Your task to perform on an android device: toggle airplane mode Image 0: 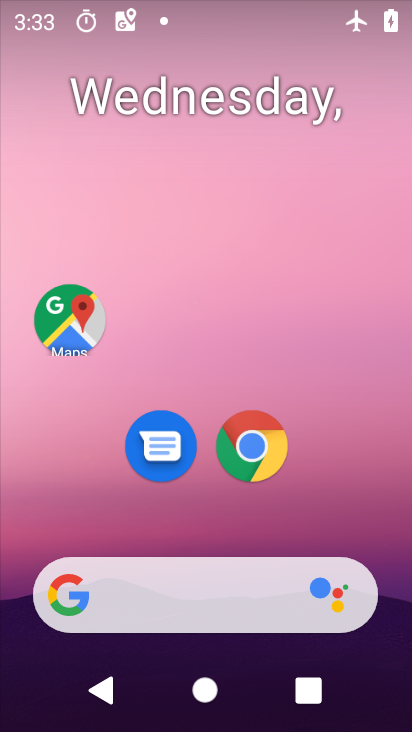
Step 0: drag from (249, 516) to (308, 51)
Your task to perform on an android device: toggle airplane mode Image 1: 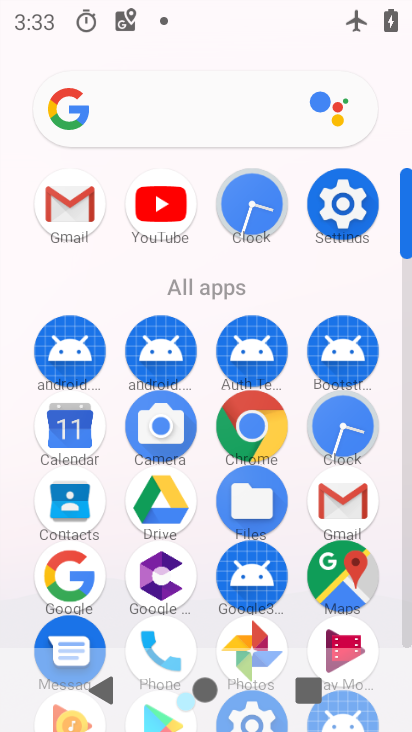
Step 1: click (342, 195)
Your task to perform on an android device: toggle airplane mode Image 2: 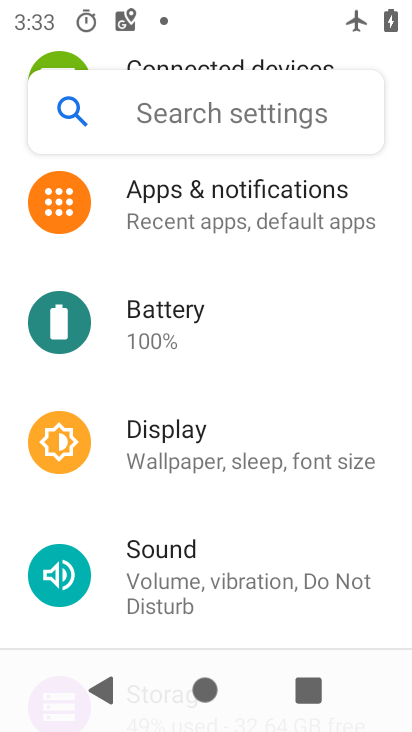
Step 2: drag from (170, 180) to (260, 598)
Your task to perform on an android device: toggle airplane mode Image 3: 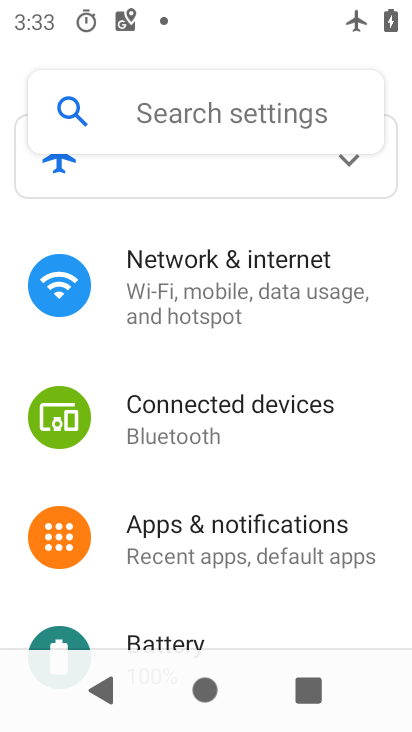
Step 3: click (195, 286)
Your task to perform on an android device: toggle airplane mode Image 4: 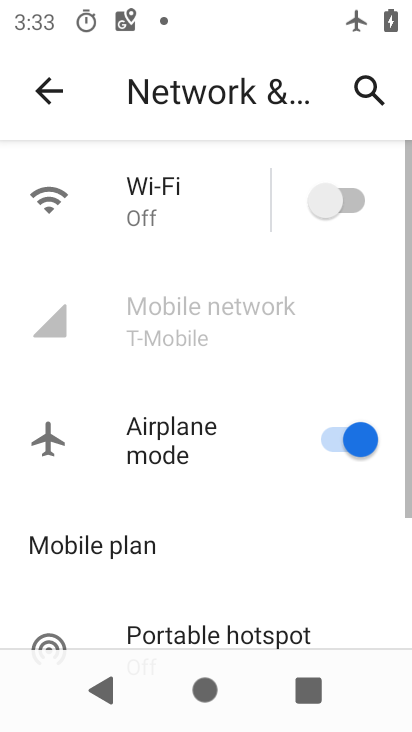
Step 4: drag from (251, 476) to (245, 333)
Your task to perform on an android device: toggle airplane mode Image 5: 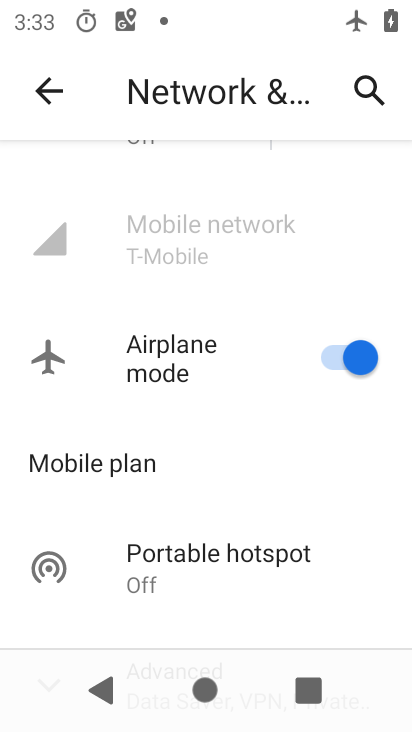
Step 5: click (341, 363)
Your task to perform on an android device: toggle airplane mode Image 6: 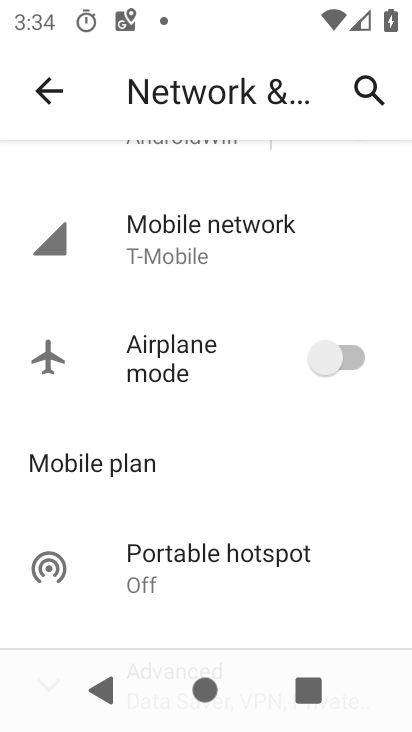
Step 6: task complete